Your task to perform on an android device: Turn off the flashlight Image 0: 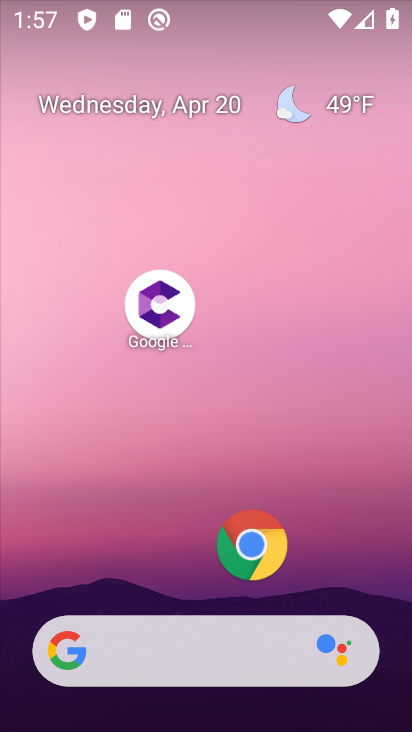
Step 0: drag from (173, 585) to (279, 100)
Your task to perform on an android device: Turn off the flashlight Image 1: 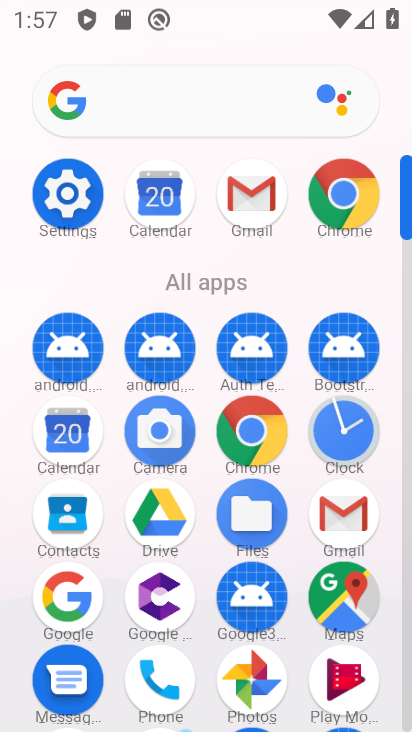
Step 1: click (66, 194)
Your task to perform on an android device: Turn off the flashlight Image 2: 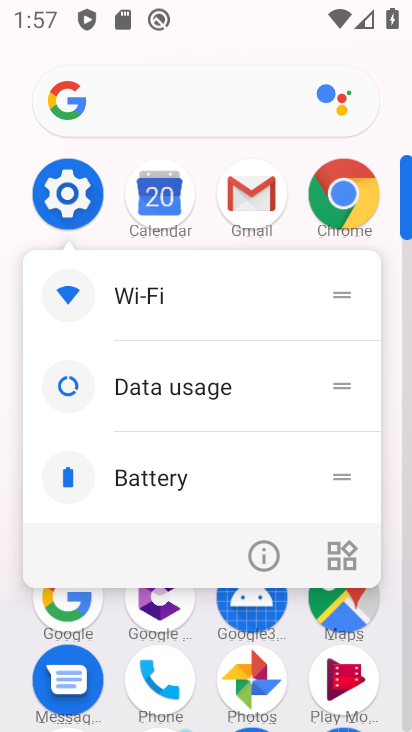
Step 2: click (66, 194)
Your task to perform on an android device: Turn off the flashlight Image 3: 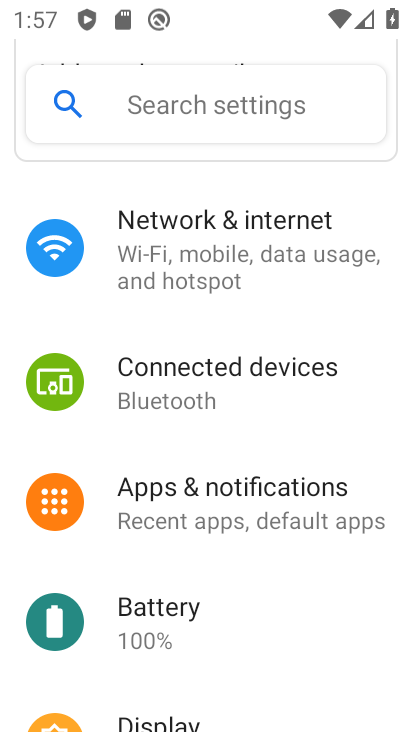
Step 3: drag from (201, 411) to (226, 318)
Your task to perform on an android device: Turn off the flashlight Image 4: 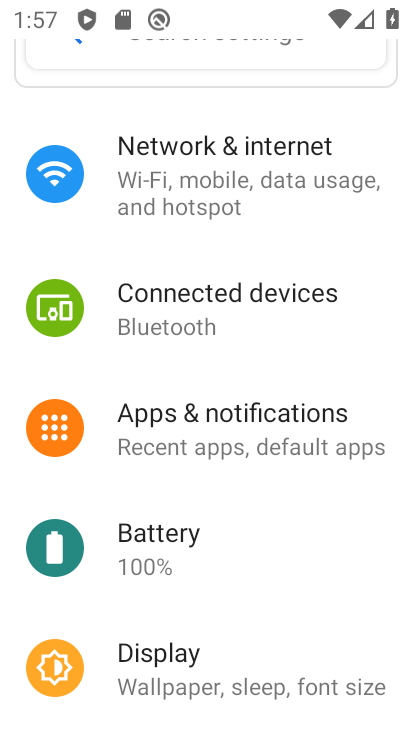
Step 4: drag from (240, 478) to (273, 384)
Your task to perform on an android device: Turn off the flashlight Image 5: 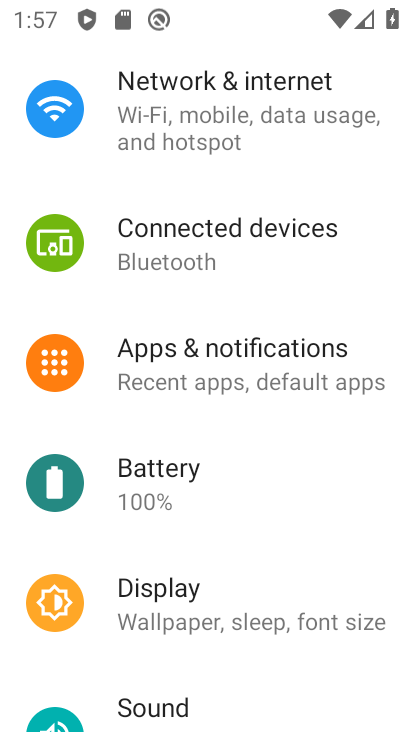
Step 5: drag from (242, 539) to (277, 424)
Your task to perform on an android device: Turn off the flashlight Image 6: 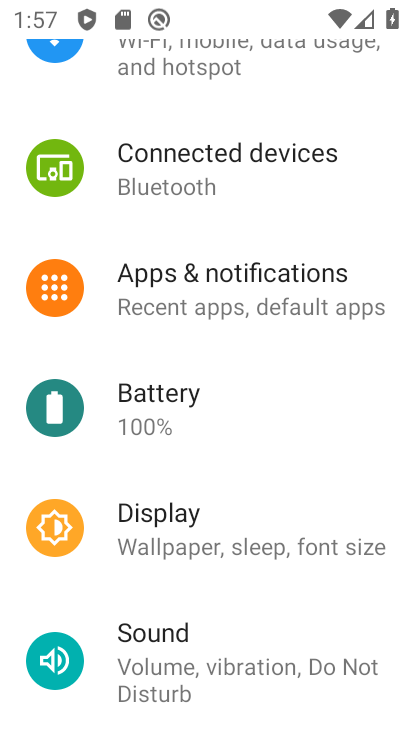
Step 6: drag from (250, 542) to (286, 454)
Your task to perform on an android device: Turn off the flashlight Image 7: 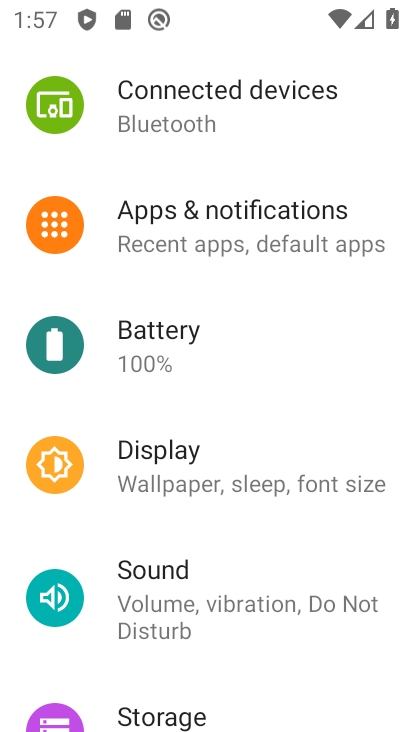
Step 7: click (282, 490)
Your task to perform on an android device: Turn off the flashlight Image 8: 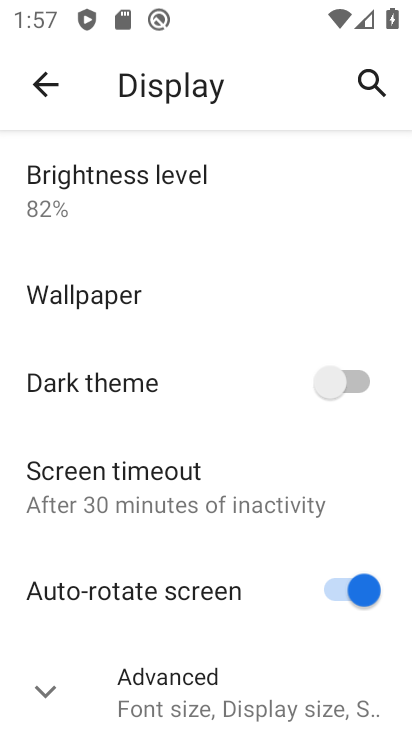
Step 8: drag from (150, 454) to (191, 362)
Your task to perform on an android device: Turn off the flashlight Image 9: 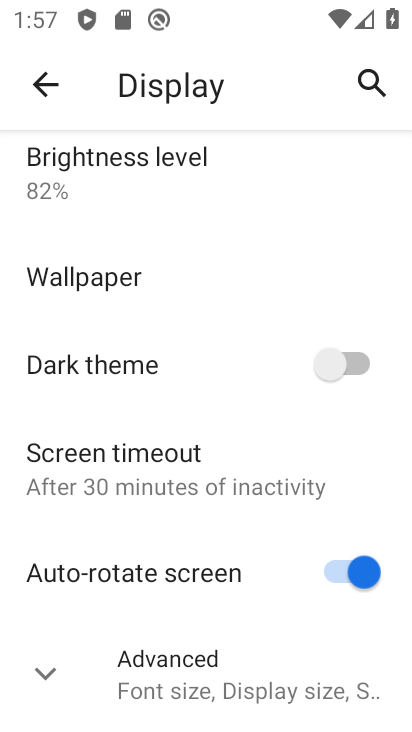
Step 9: click (195, 672)
Your task to perform on an android device: Turn off the flashlight Image 10: 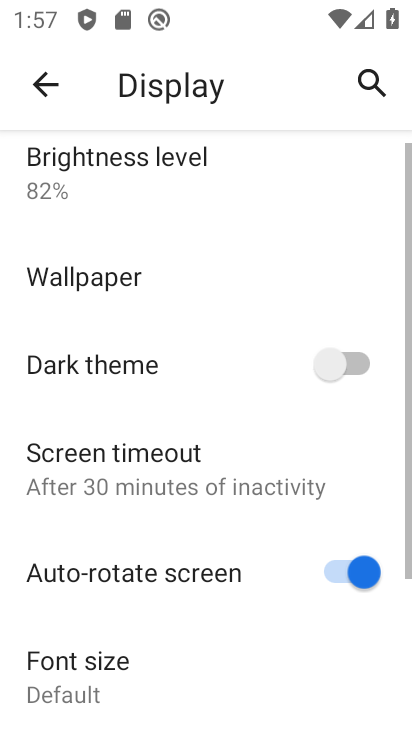
Step 10: drag from (195, 672) to (216, 526)
Your task to perform on an android device: Turn off the flashlight Image 11: 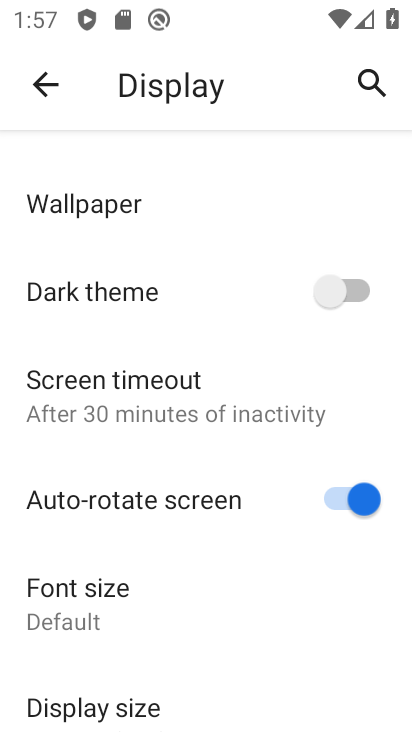
Step 11: drag from (186, 622) to (212, 512)
Your task to perform on an android device: Turn off the flashlight Image 12: 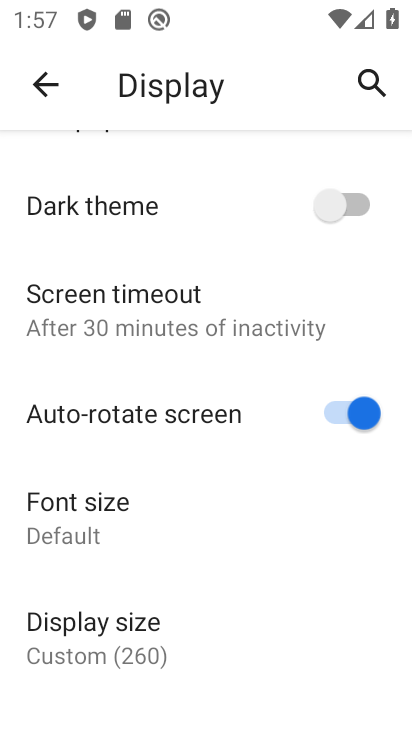
Step 12: drag from (202, 643) to (210, 484)
Your task to perform on an android device: Turn off the flashlight Image 13: 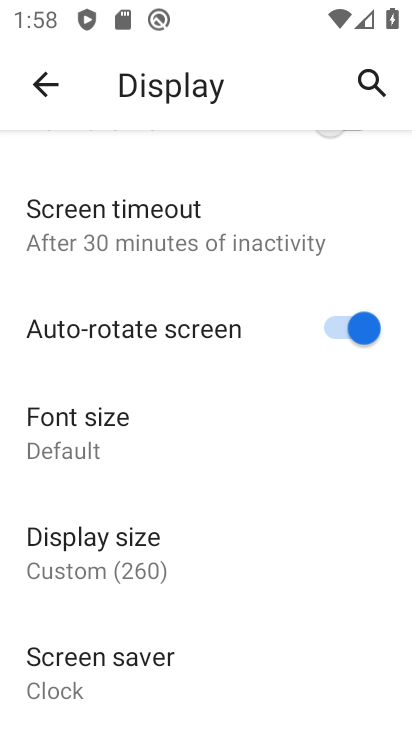
Step 13: drag from (206, 635) to (243, 492)
Your task to perform on an android device: Turn off the flashlight Image 14: 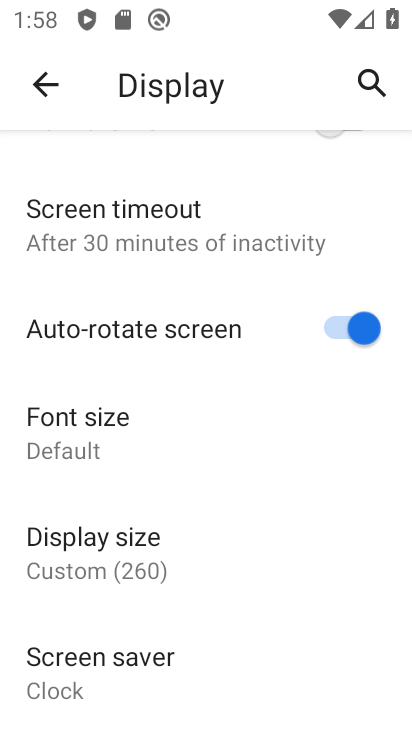
Step 14: press back button
Your task to perform on an android device: Turn off the flashlight Image 15: 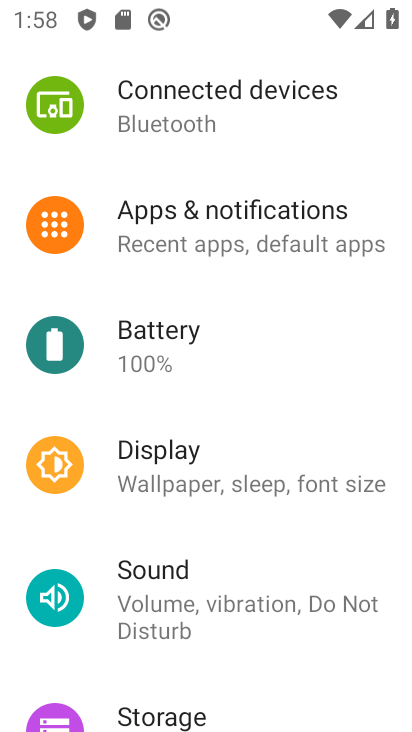
Step 15: drag from (215, 627) to (248, 505)
Your task to perform on an android device: Turn off the flashlight Image 16: 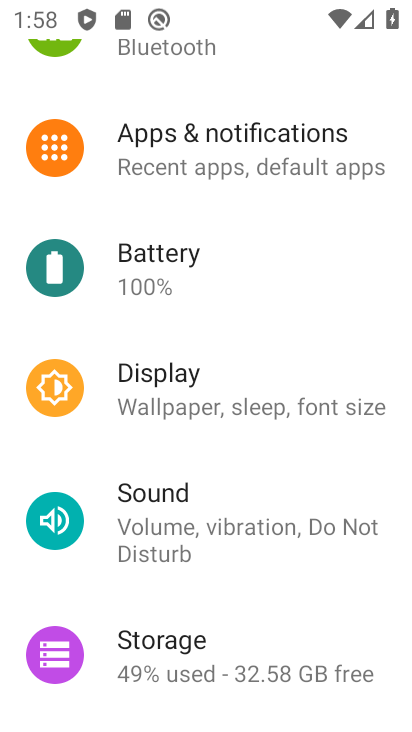
Step 16: drag from (243, 649) to (305, 491)
Your task to perform on an android device: Turn off the flashlight Image 17: 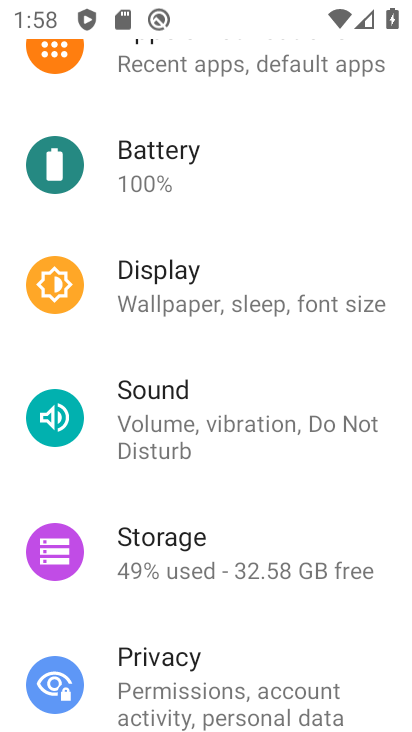
Step 17: drag from (242, 636) to (264, 490)
Your task to perform on an android device: Turn off the flashlight Image 18: 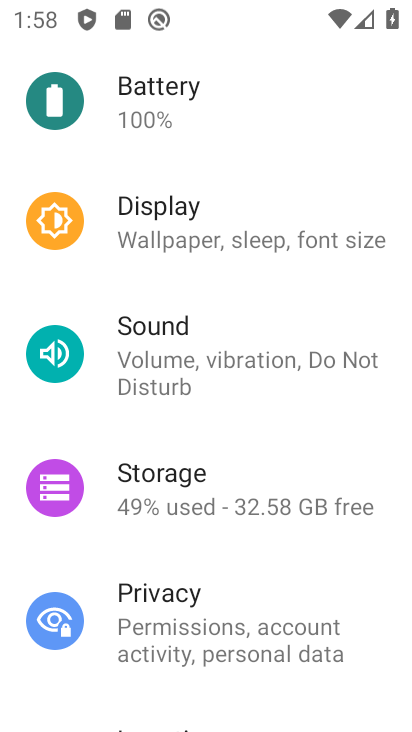
Step 18: drag from (250, 574) to (302, 428)
Your task to perform on an android device: Turn off the flashlight Image 19: 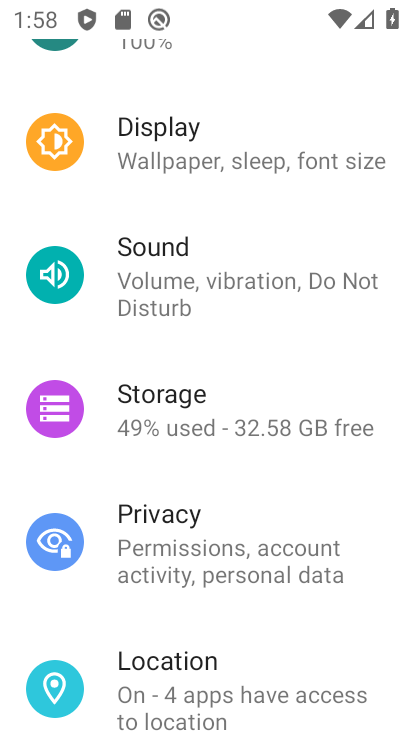
Step 19: drag from (208, 644) to (279, 495)
Your task to perform on an android device: Turn off the flashlight Image 20: 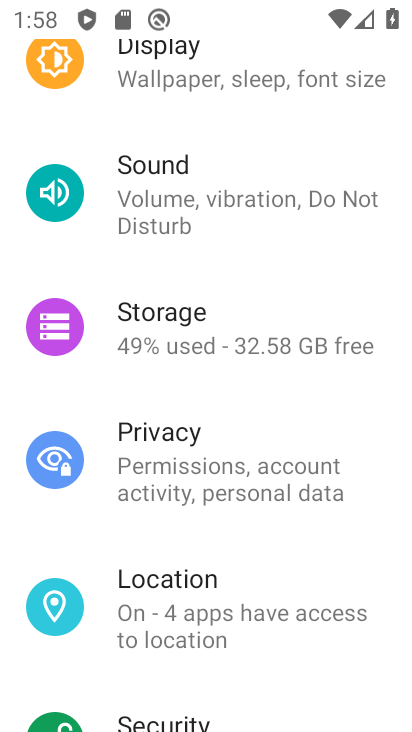
Step 20: drag from (251, 585) to (317, 435)
Your task to perform on an android device: Turn off the flashlight Image 21: 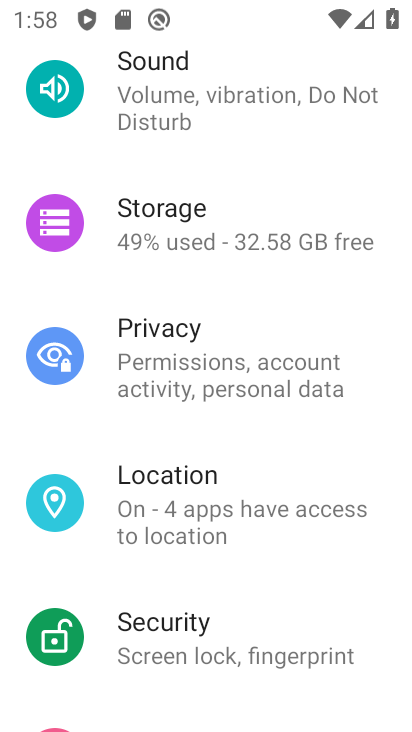
Step 21: drag from (219, 583) to (305, 433)
Your task to perform on an android device: Turn off the flashlight Image 22: 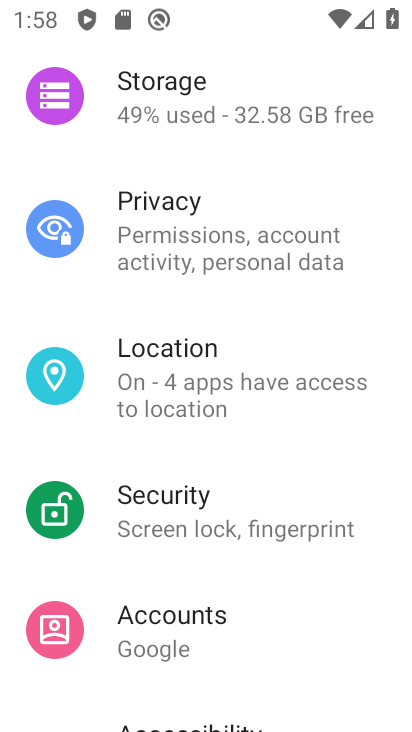
Step 22: drag from (252, 589) to (325, 476)
Your task to perform on an android device: Turn off the flashlight Image 23: 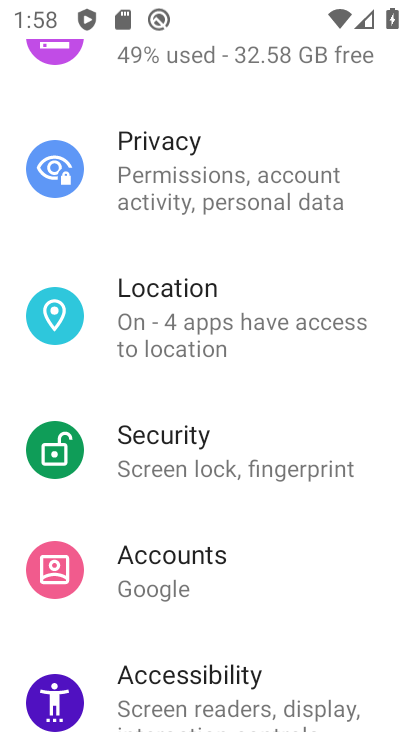
Step 23: drag from (261, 630) to (344, 524)
Your task to perform on an android device: Turn off the flashlight Image 24: 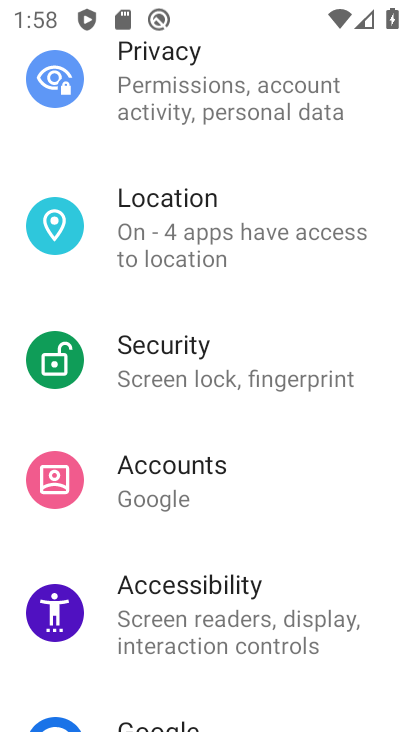
Step 24: click (272, 612)
Your task to perform on an android device: Turn off the flashlight Image 25: 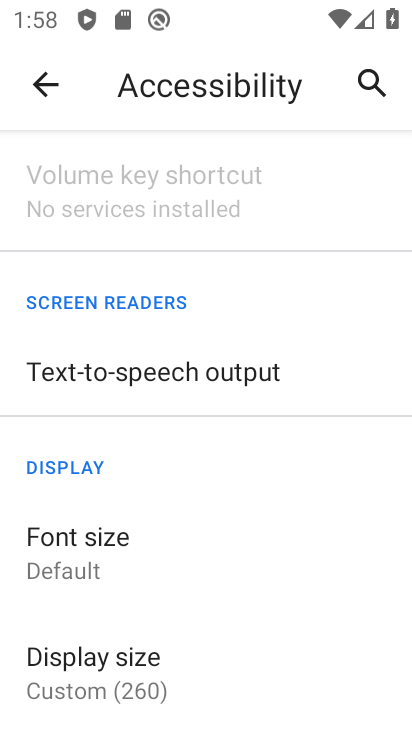
Step 25: click (186, 227)
Your task to perform on an android device: Turn off the flashlight Image 26: 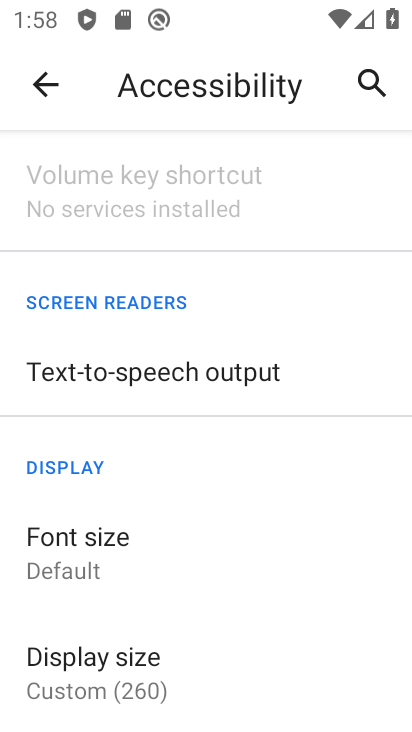
Step 26: drag from (183, 425) to (222, 321)
Your task to perform on an android device: Turn off the flashlight Image 27: 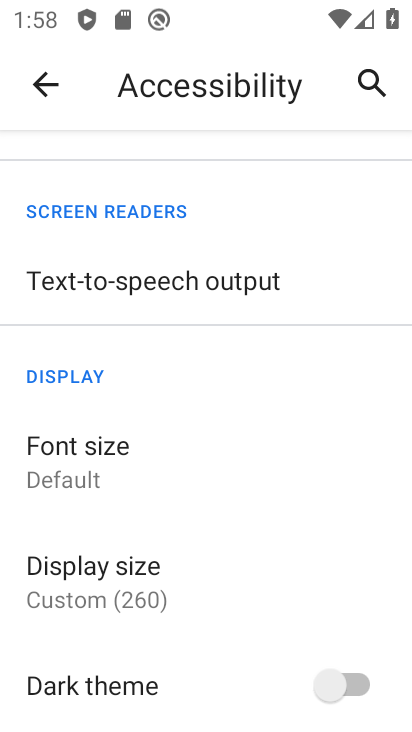
Step 27: drag from (206, 507) to (234, 372)
Your task to perform on an android device: Turn off the flashlight Image 28: 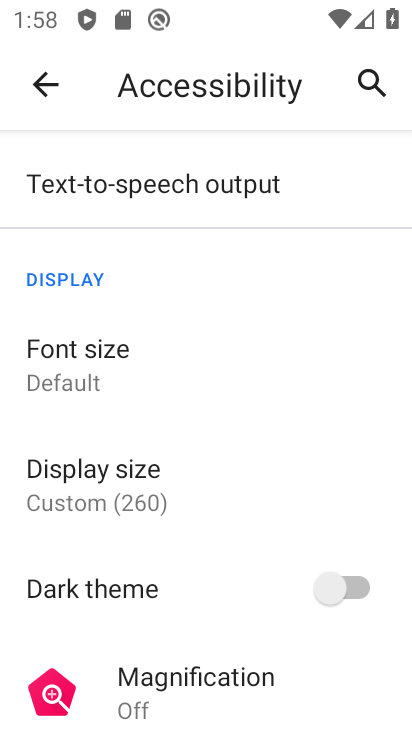
Step 28: drag from (186, 533) to (243, 370)
Your task to perform on an android device: Turn off the flashlight Image 29: 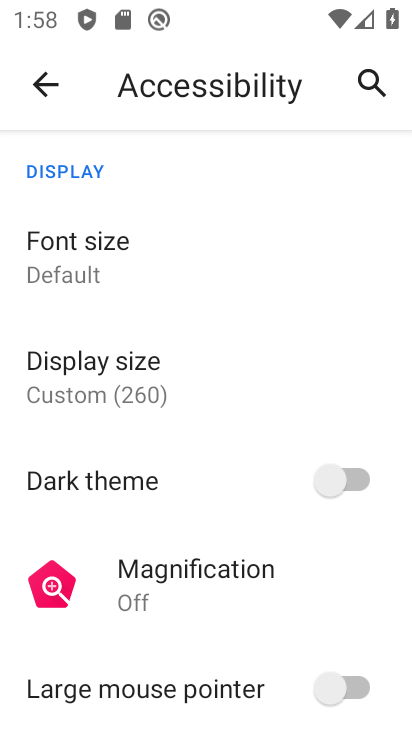
Step 29: click (244, 560)
Your task to perform on an android device: Turn off the flashlight Image 30: 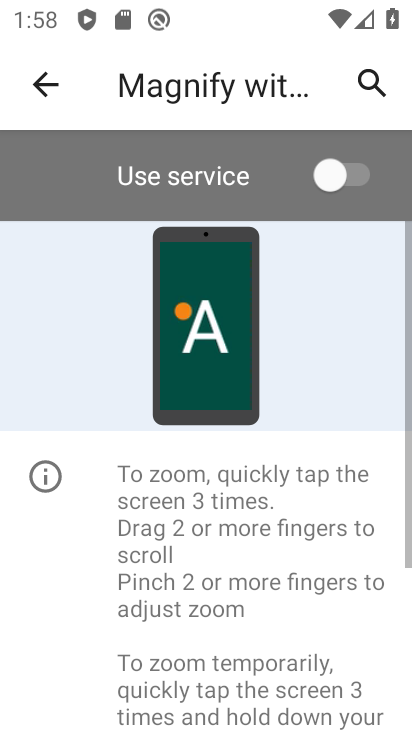
Step 30: drag from (221, 599) to (271, 380)
Your task to perform on an android device: Turn off the flashlight Image 31: 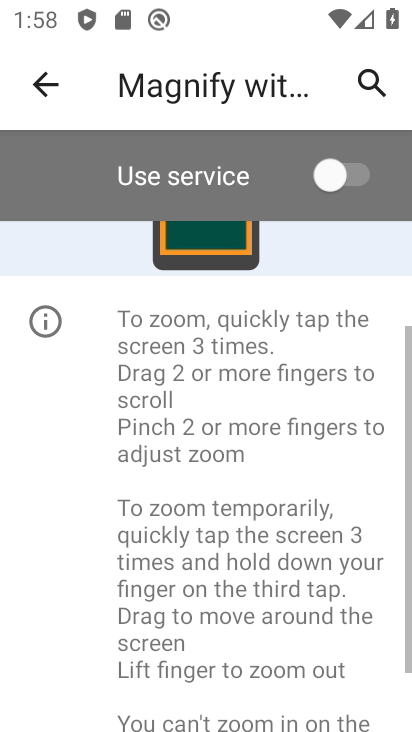
Step 31: press back button
Your task to perform on an android device: Turn off the flashlight Image 32: 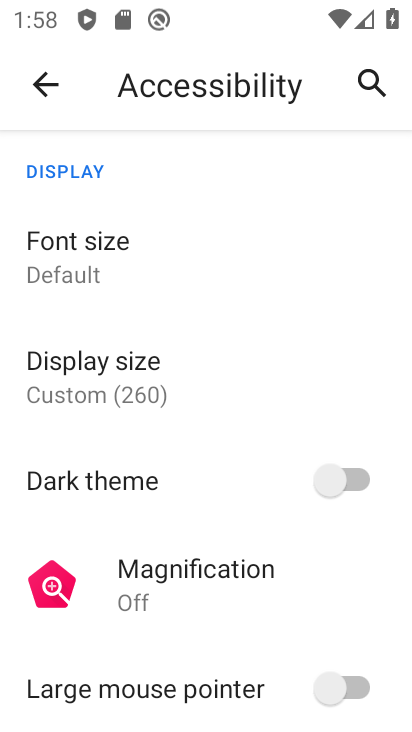
Step 32: drag from (208, 560) to (244, 449)
Your task to perform on an android device: Turn off the flashlight Image 33: 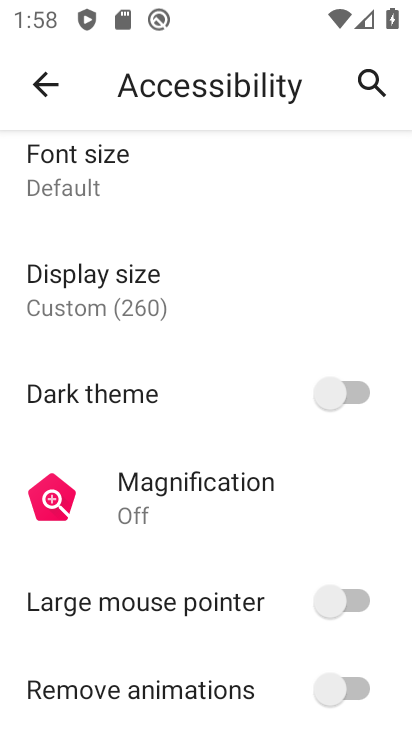
Step 33: drag from (206, 559) to (273, 415)
Your task to perform on an android device: Turn off the flashlight Image 34: 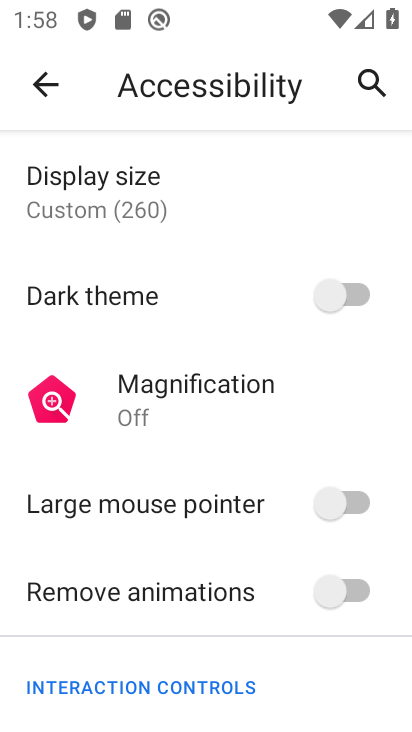
Step 34: drag from (194, 624) to (206, 500)
Your task to perform on an android device: Turn off the flashlight Image 35: 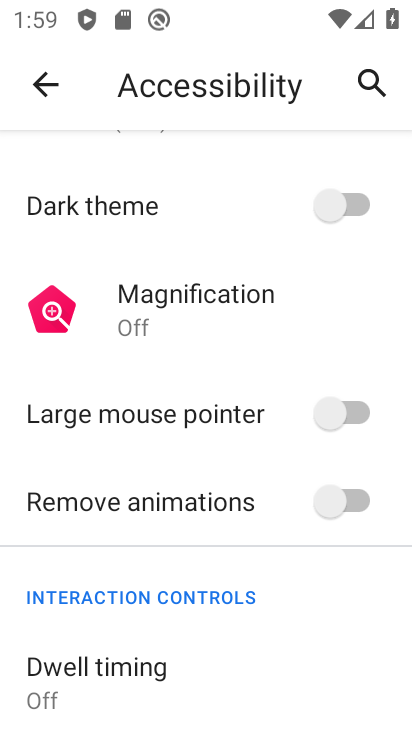
Step 35: drag from (154, 557) to (211, 422)
Your task to perform on an android device: Turn off the flashlight Image 36: 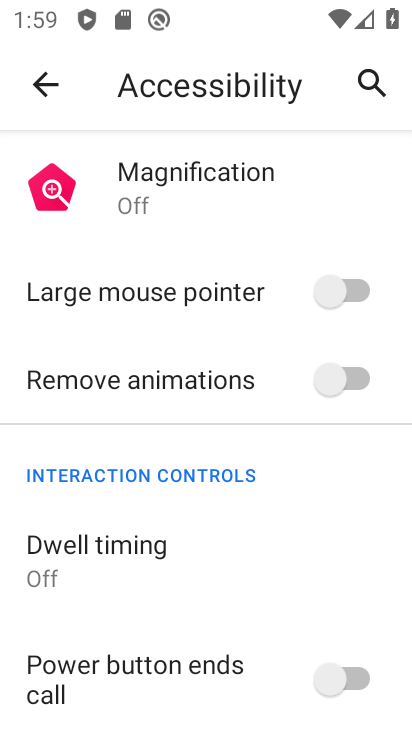
Step 36: drag from (189, 598) to (220, 490)
Your task to perform on an android device: Turn off the flashlight Image 37: 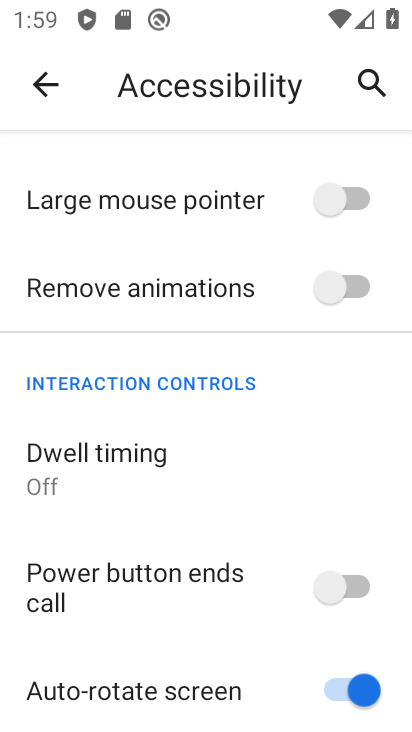
Step 37: drag from (181, 628) to (238, 484)
Your task to perform on an android device: Turn off the flashlight Image 38: 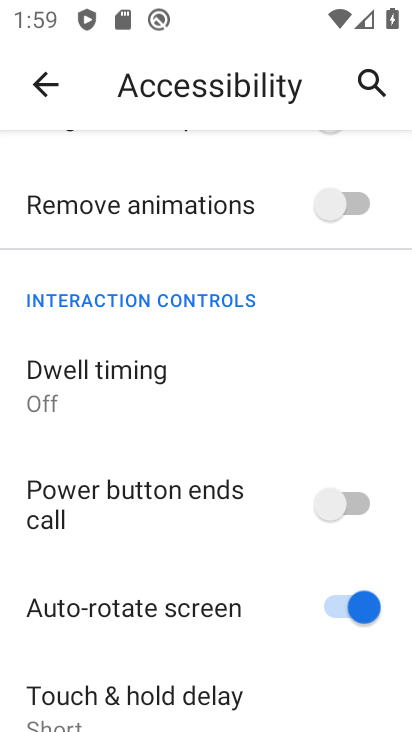
Step 38: drag from (203, 635) to (243, 522)
Your task to perform on an android device: Turn off the flashlight Image 39: 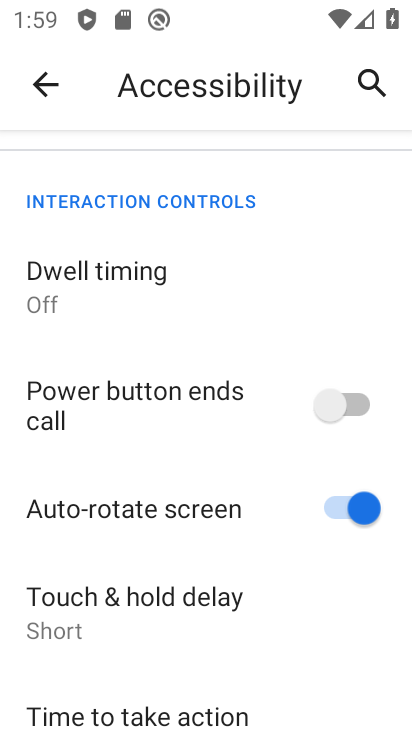
Step 39: click (234, 590)
Your task to perform on an android device: Turn off the flashlight Image 40: 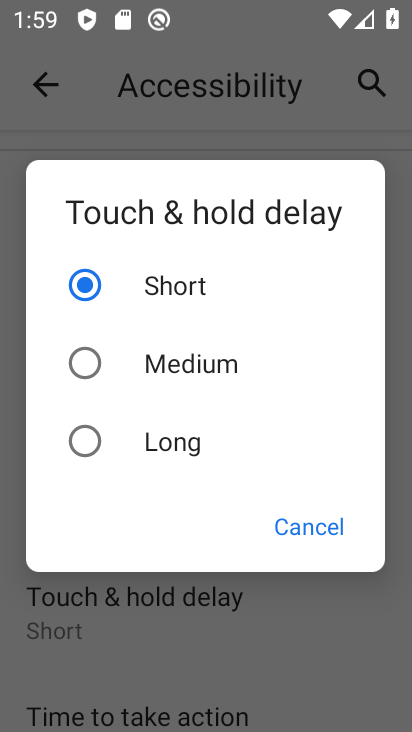
Step 40: click (309, 525)
Your task to perform on an android device: Turn off the flashlight Image 41: 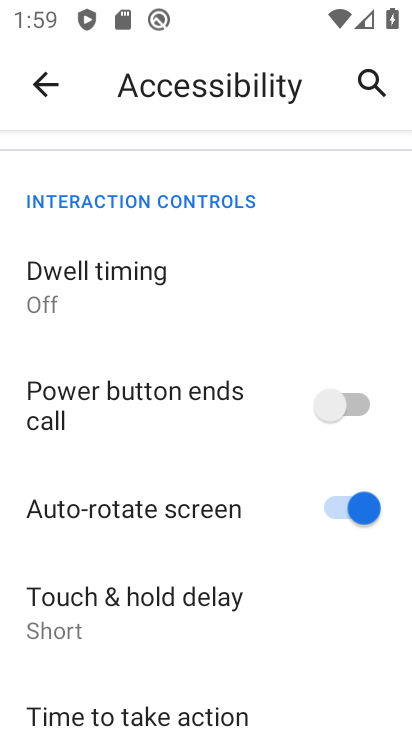
Step 41: drag from (197, 663) to (225, 493)
Your task to perform on an android device: Turn off the flashlight Image 42: 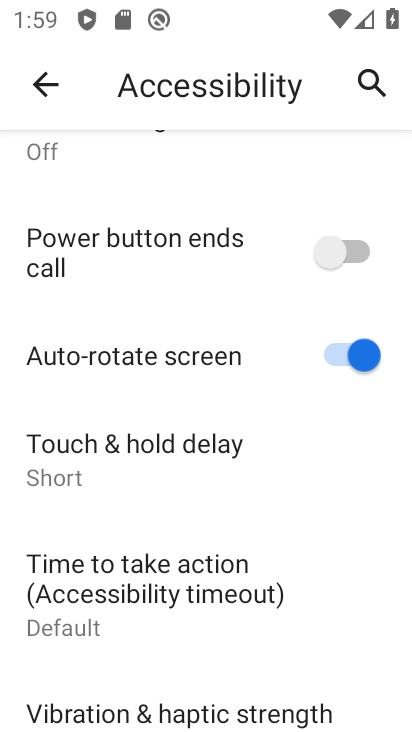
Step 42: drag from (193, 640) to (264, 464)
Your task to perform on an android device: Turn off the flashlight Image 43: 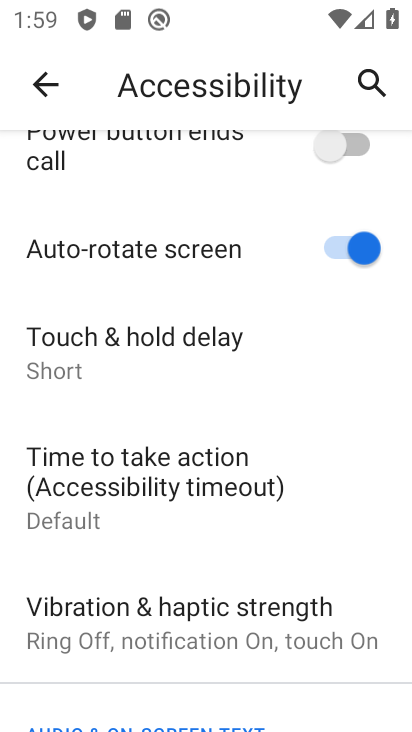
Step 43: drag from (192, 664) to (250, 525)
Your task to perform on an android device: Turn off the flashlight Image 44: 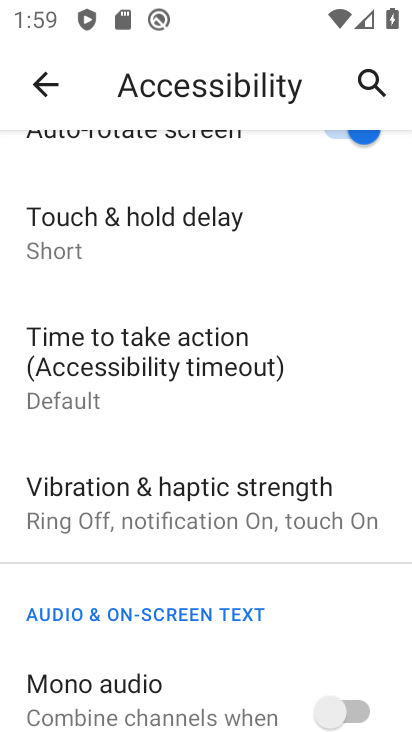
Step 44: click (255, 508)
Your task to perform on an android device: Turn off the flashlight Image 45: 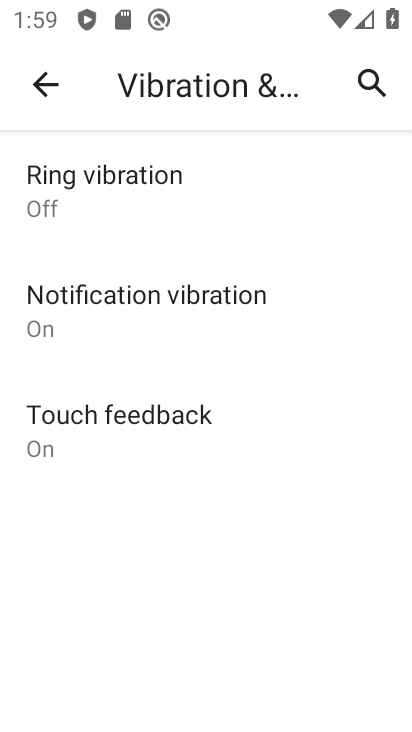
Step 45: task complete